Your task to perform on an android device: What is the recent news? Image 0: 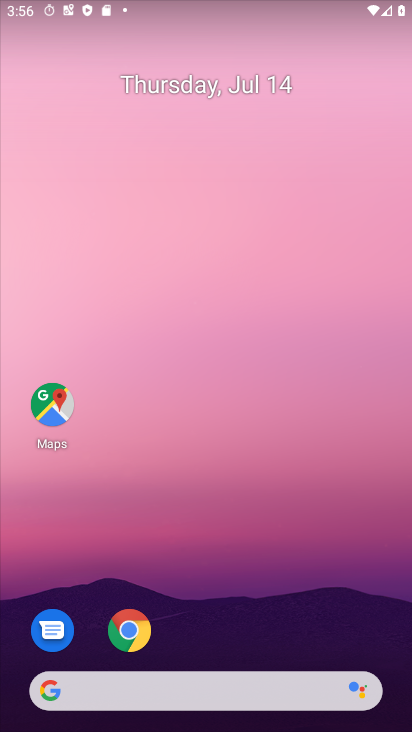
Step 0: drag from (2, 246) to (387, 535)
Your task to perform on an android device: What is the recent news? Image 1: 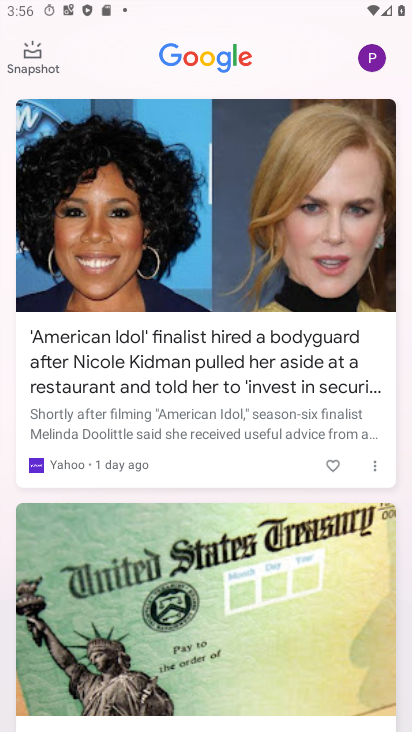
Step 1: task complete